Your task to perform on an android device: search for starred emails in the gmail app Image 0: 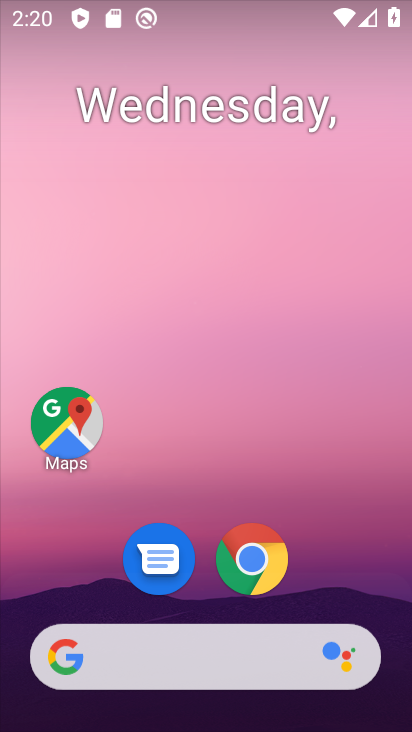
Step 0: drag from (120, 629) to (189, 153)
Your task to perform on an android device: search for starred emails in the gmail app Image 1: 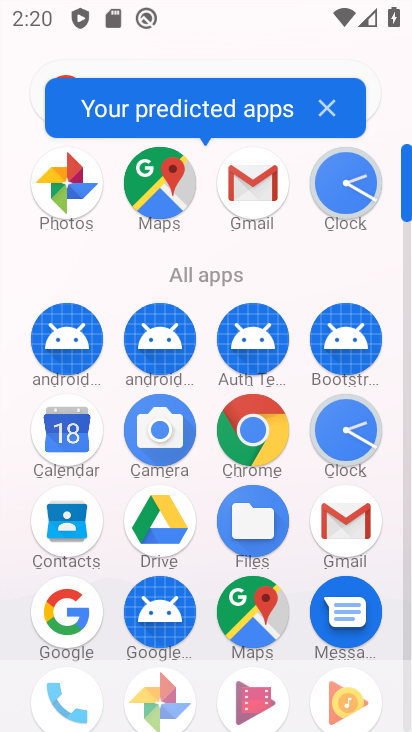
Step 1: click (251, 187)
Your task to perform on an android device: search for starred emails in the gmail app Image 2: 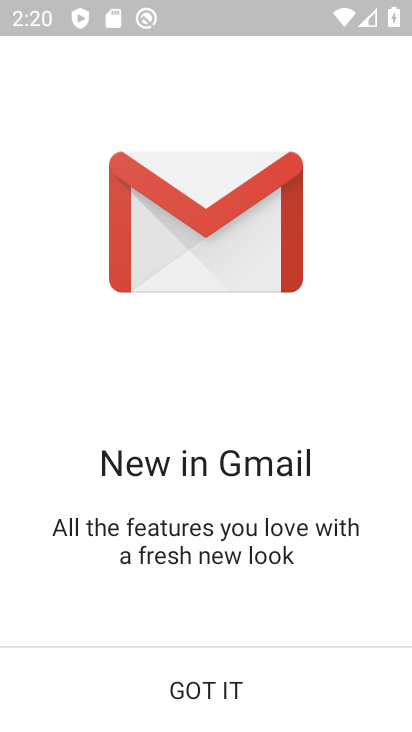
Step 2: click (204, 698)
Your task to perform on an android device: search for starred emails in the gmail app Image 3: 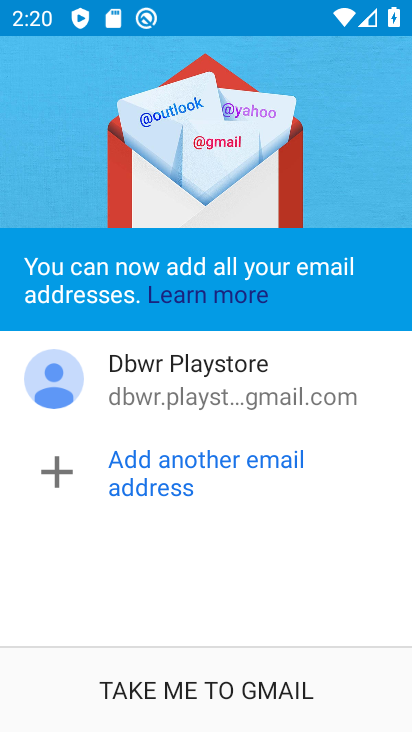
Step 3: click (204, 694)
Your task to perform on an android device: search for starred emails in the gmail app Image 4: 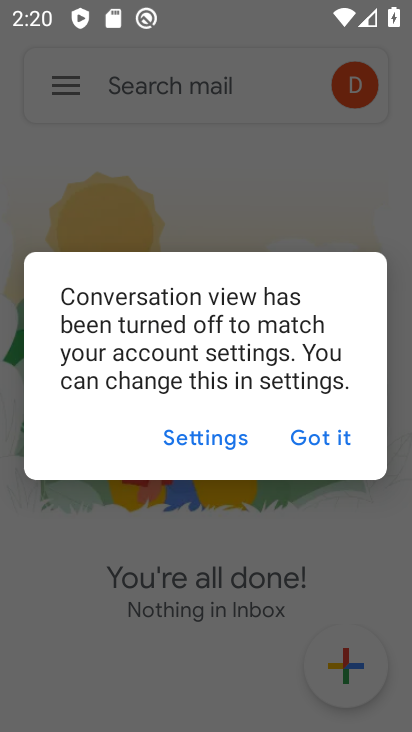
Step 4: click (308, 440)
Your task to perform on an android device: search for starred emails in the gmail app Image 5: 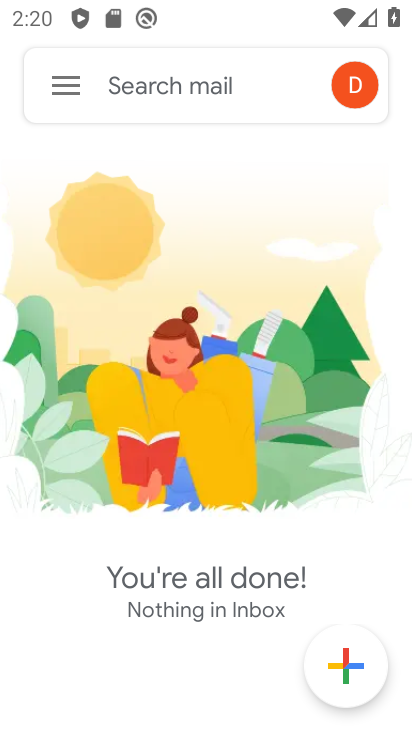
Step 5: click (71, 92)
Your task to perform on an android device: search for starred emails in the gmail app Image 6: 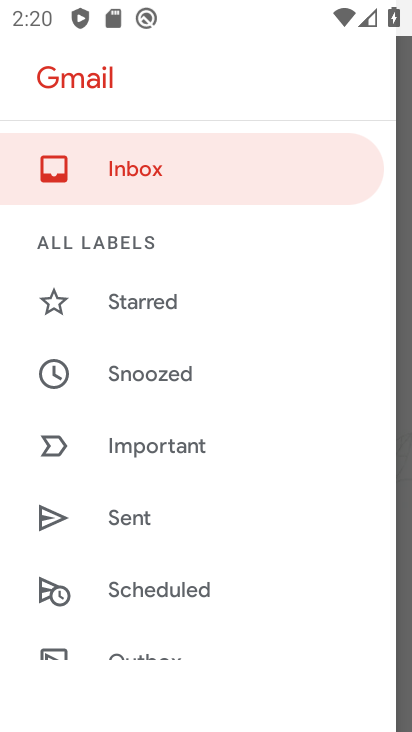
Step 6: drag from (154, 637) to (171, 268)
Your task to perform on an android device: search for starred emails in the gmail app Image 7: 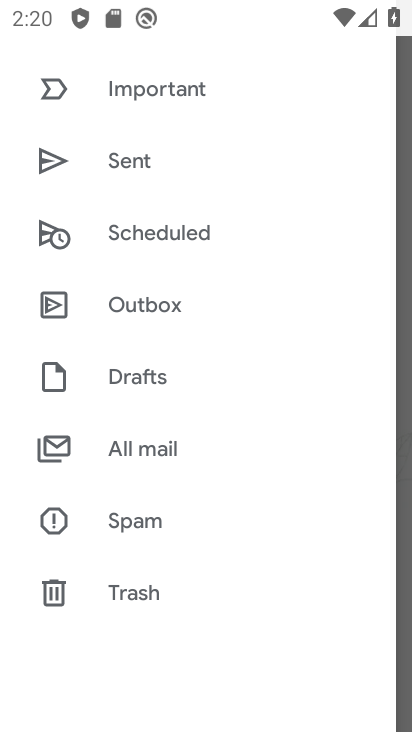
Step 7: drag from (158, 121) to (189, 556)
Your task to perform on an android device: search for starred emails in the gmail app Image 8: 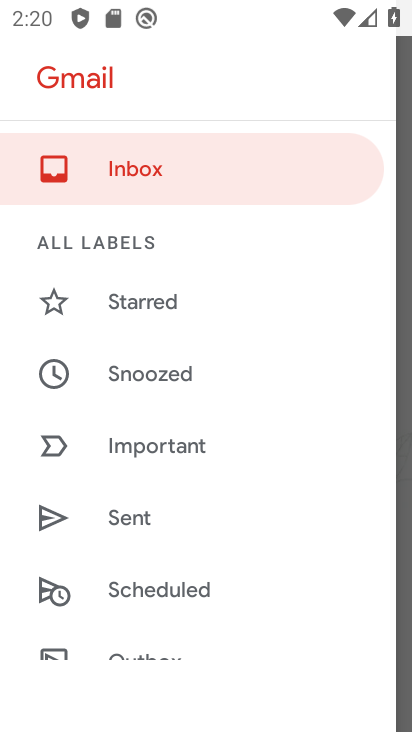
Step 8: click (145, 310)
Your task to perform on an android device: search for starred emails in the gmail app Image 9: 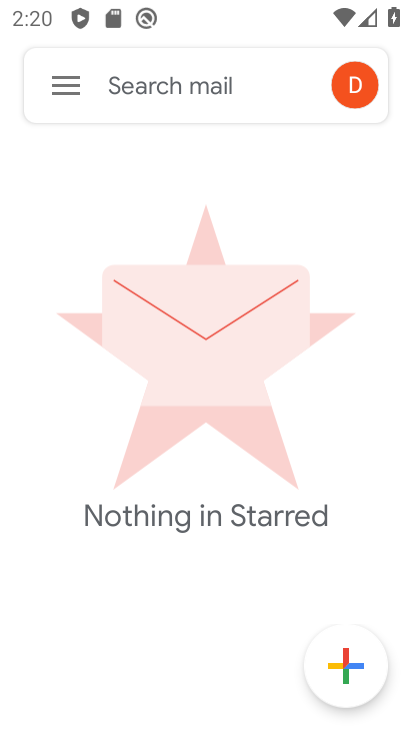
Step 9: task complete